Your task to perform on an android device: turn on wifi Image 0: 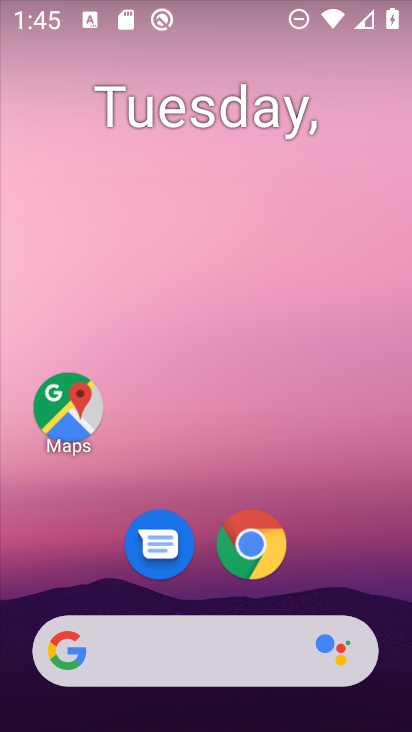
Step 0: drag from (397, 630) to (284, 130)
Your task to perform on an android device: turn on wifi Image 1: 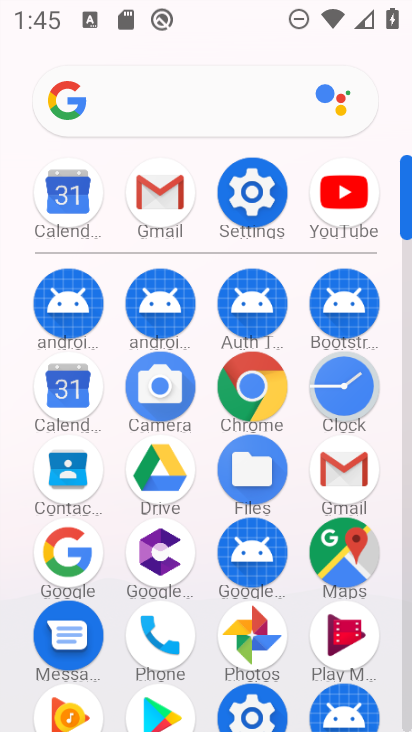
Step 1: click (408, 690)
Your task to perform on an android device: turn on wifi Image 2: 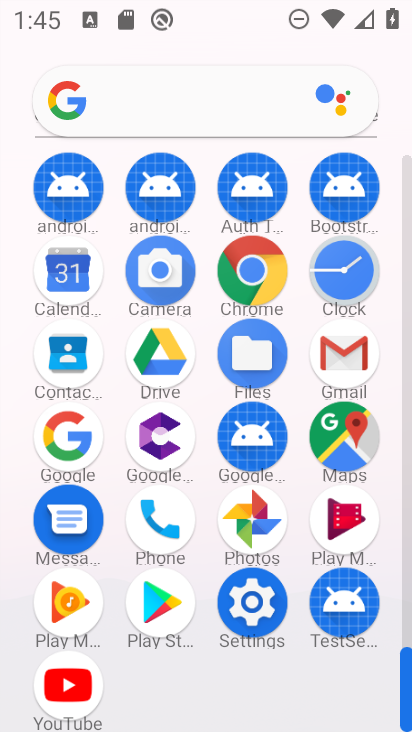
Step 2: click (251, 601)
Your task to perform on an android device: turn on wifi Image 3: 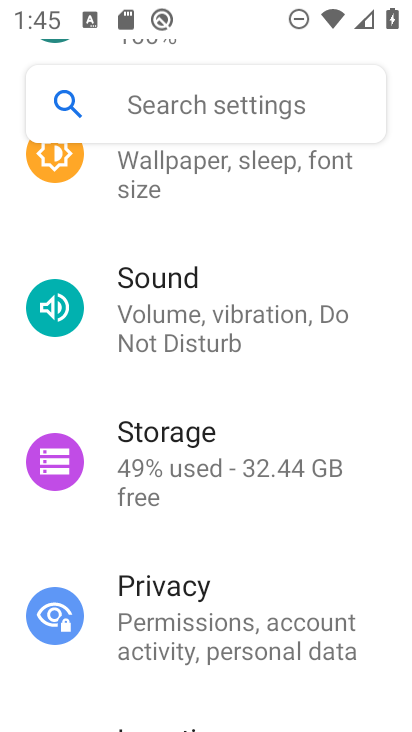
Step 3: drag from (367, 221) to (332, 568)
Your task to perform on an android device: turn on wifi Image 4: 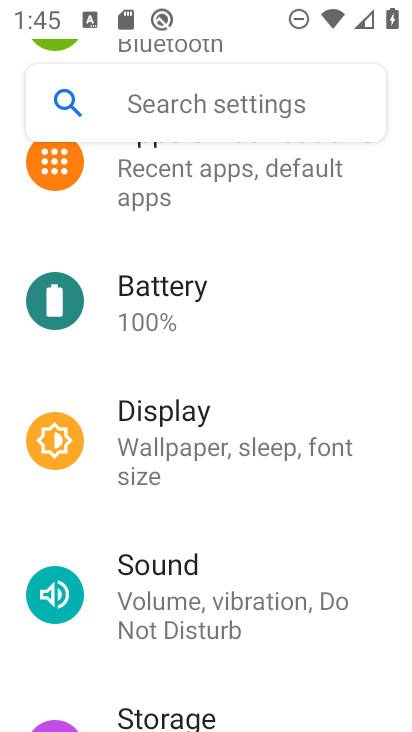
Step 4: drag from (338, 265) to (324, 583)
Your task to perform on an android device: turn on wifi Image 5: 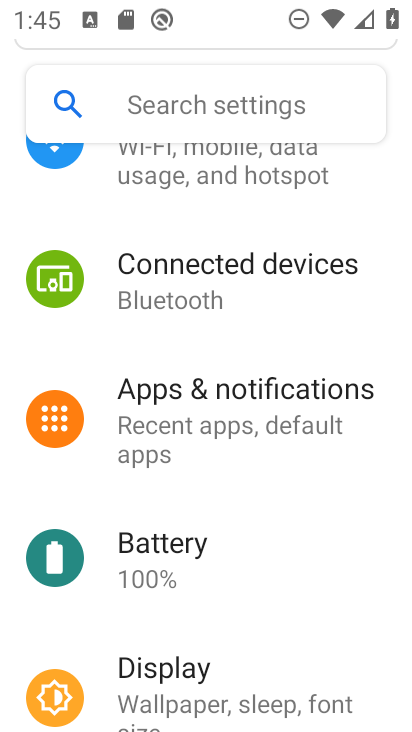
Step 5: drag from (385, 284) to (355, 637)
Your task to perform on an android device: turn on wifi Image 6: 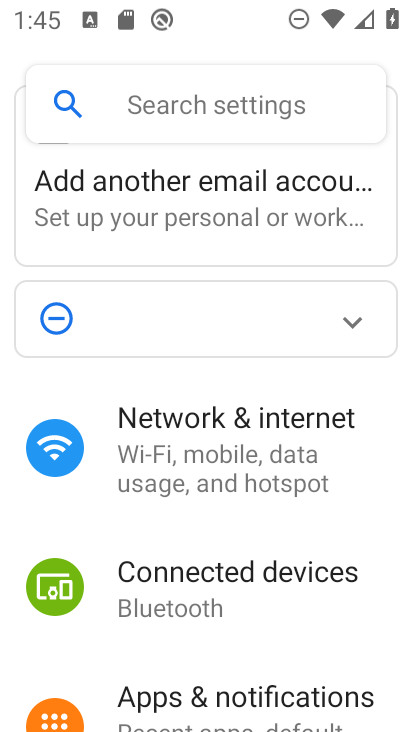
Step 6: click (187, 450)
Your task to perform on an android device: turn on wifi Image 7: 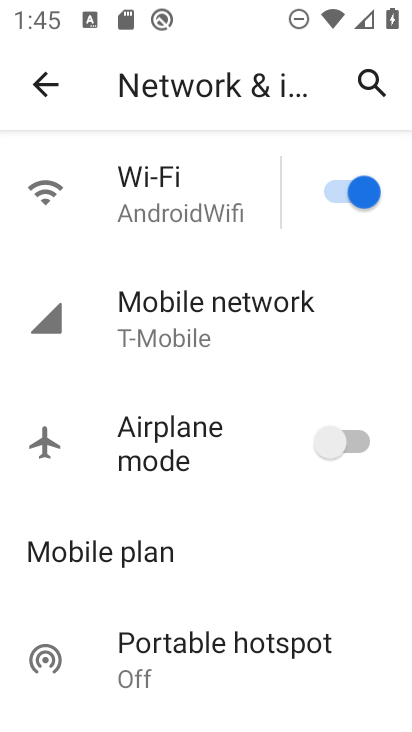
Step 7: task complete